Your task to perform on an android device: Open the calendar and show me this week's events? Image 0: 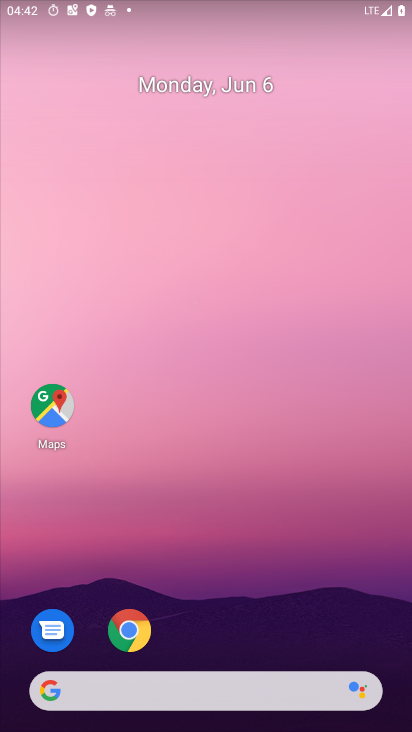
Step 0: drag from (250, 650) to (224, 105)
Your task to perform on an android device: Open the calendar and show me this week's events? Image 1: 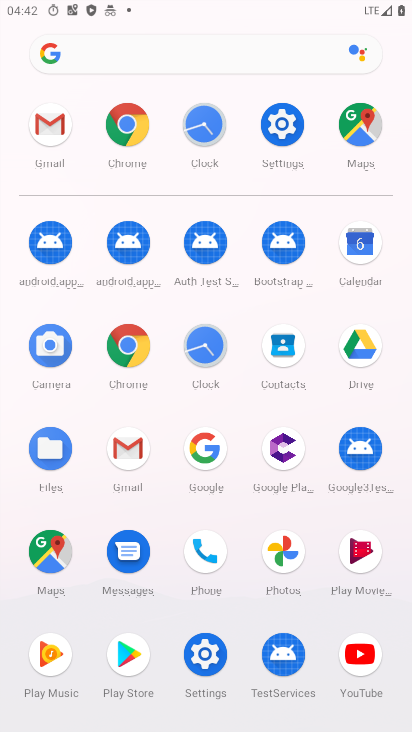
Step 1: click (362, 245)
Your task to perform on an android device: Open the calendar and show me this week's events? Image 2: 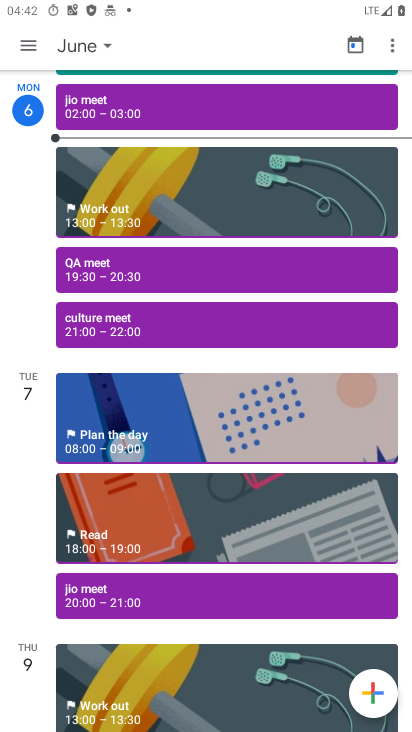
Step 2: click (93, 52)
Your task to perform on an android device: Open the calendar and show me this week's events? Image 3: 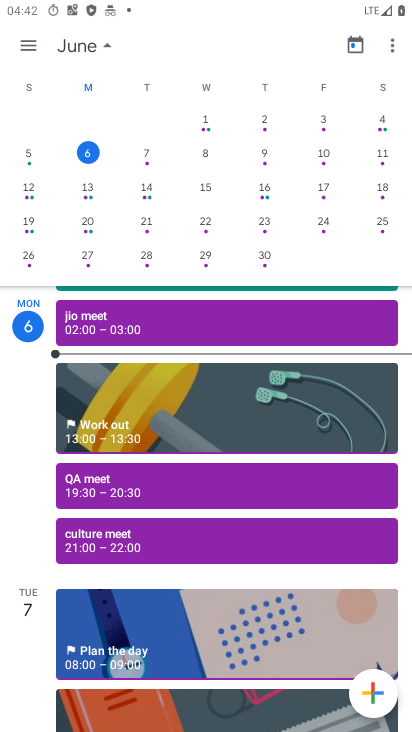
Step 3: click (90, 153)
Your task to perform on an android device: Open the calendar and show me this week's events? Image 4: 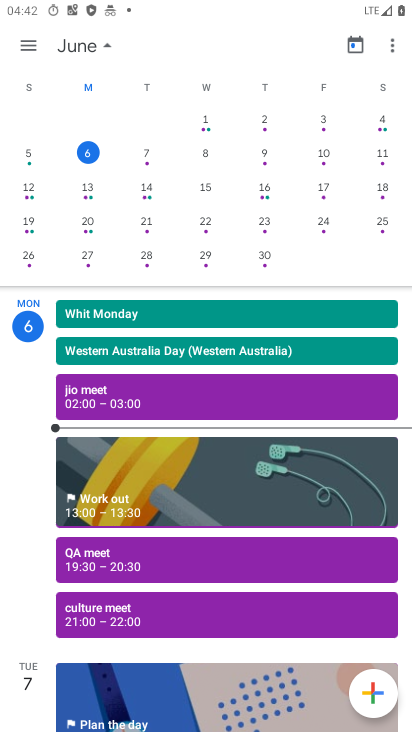
Step 4: task complete